Your task to perform on an android device: Open maps Image 0: 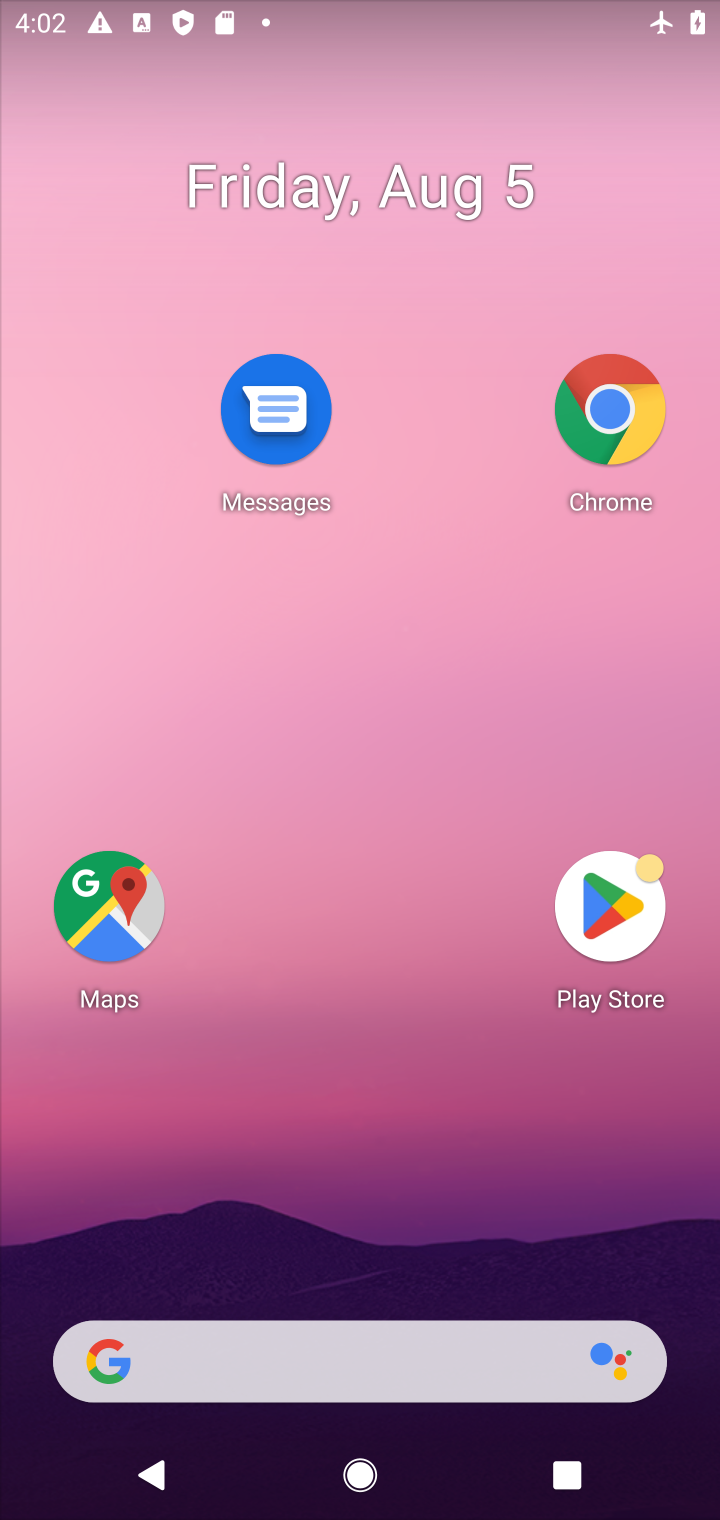
Step 0: click (118, 947)
Your task to perform on an android device: Open maps Image 1: 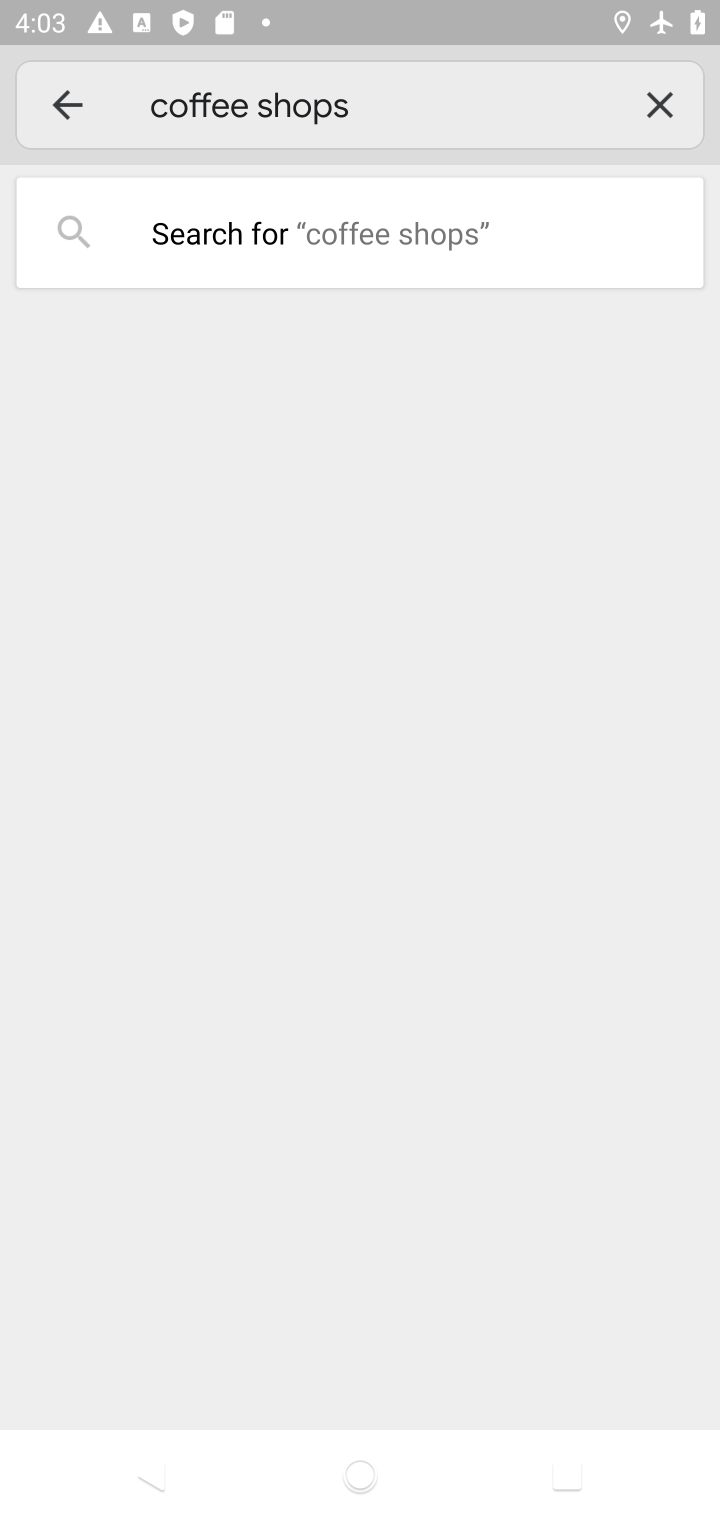
Step 1: task complete